Your task to perform on an android device: Show the shopping cart on walmart. Add sony triple a to the cart on walmart Image 0: 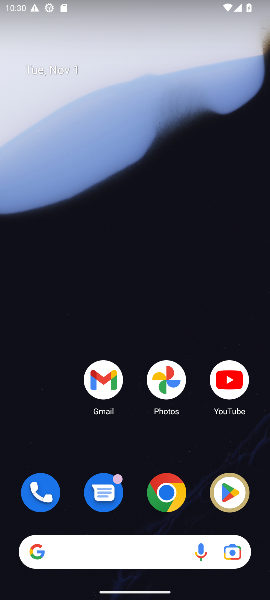
Step 0: click (159, 496)
Your task to perform on an android device: Show the shopping cart on walmart. Add sony triple a to the cart on walmart Image 1: 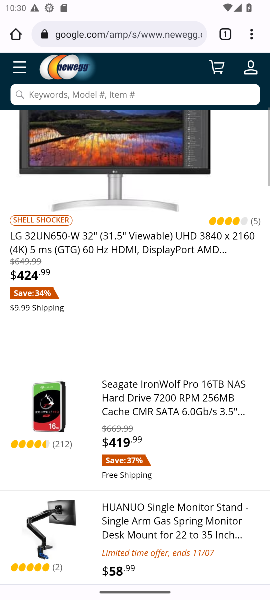
Step 1: click (74, 31)
Your task to perform on an android device: Show the shopping cart on walmart. Add sony triple a to the cart on walmart Image 2: 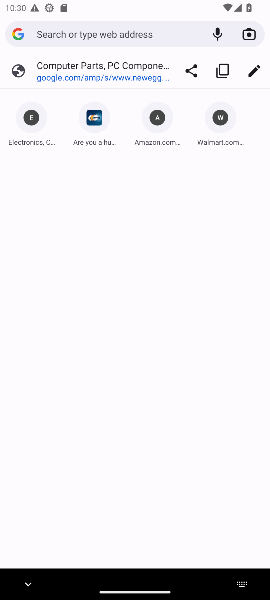
Step 2: type "walmart"
Your task to perform on an android device: Show the shopping cart on walmart. Add sony triple a to the cart on walmart Image 3: 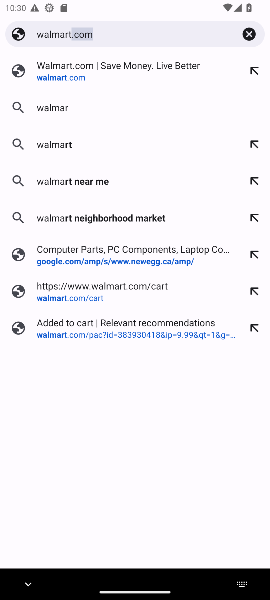
Step 3: type ""
Your task to perform on an android device: Show the shopping cart on walmart. Add sony triple a to the cart on walmart Image 4: 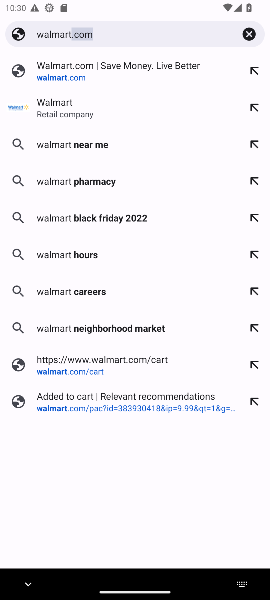
Step 4: click (46, 114)
Your task to perform on an android device: Show the shopping cart on walmart. Add sony triple a to the cart on walmart Image 5: 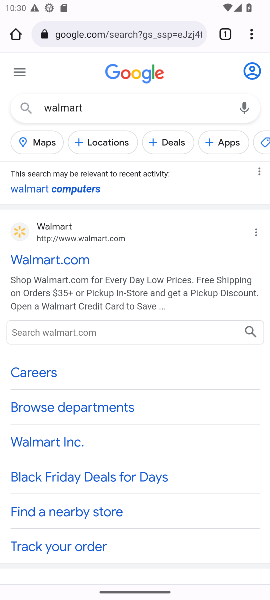
Step 5: click (47, 263)
Your task to perform on an android device: Show the shopping cart on walmart. Add sony triple a to the cart on walmart Image 6: 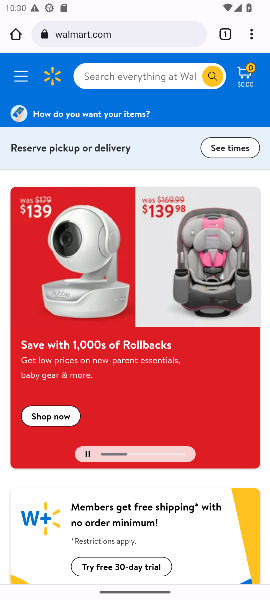
Step 6: click (108, 72)
Your task to perform on an android device: Show the shopping cart on walmart. Add sony triple a to the cart on walmart Image 7: 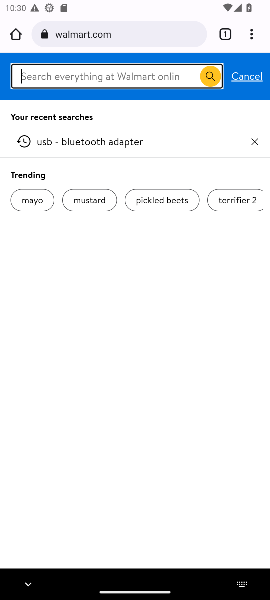
Step 7: type "sony triple"
Your task to perform on an android device: Show the shopping cart on walmart. Add sony triple a to the cart on walmart Image 8: 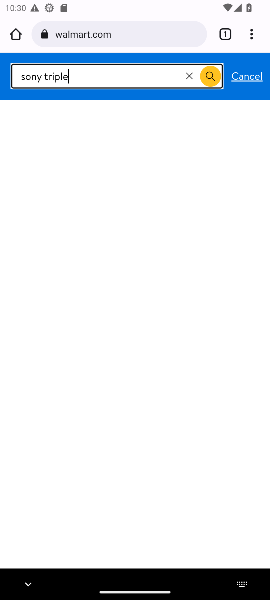
Step 8: type ""
Your task to perform on an android device: Show the shopping cart on walmart. Add sony triple a to the cart on walmart Image 9: 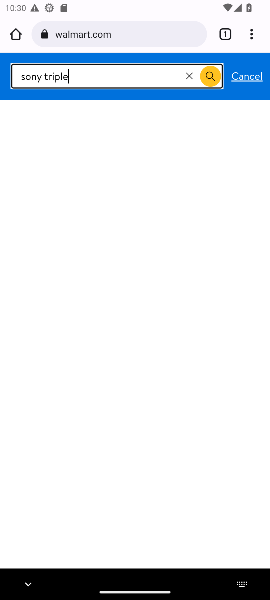
Step 9: click (206, 76)
Your task to perform on an android device: Show the shopping cart on walmart. Add sony triple a to the cart on walmart Image 10: 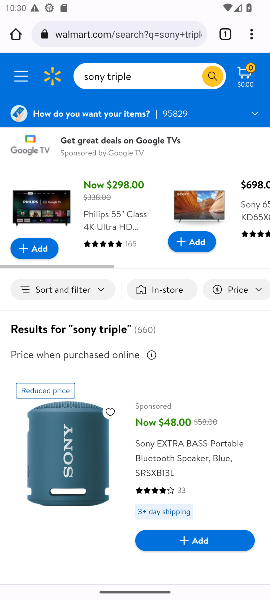
Step 10: drag from (64, 478) to (147, 157)
Your task to perform on an android device: Show the shopping cart on walmart. Add sony triple a to the cart on walmart Image 11: 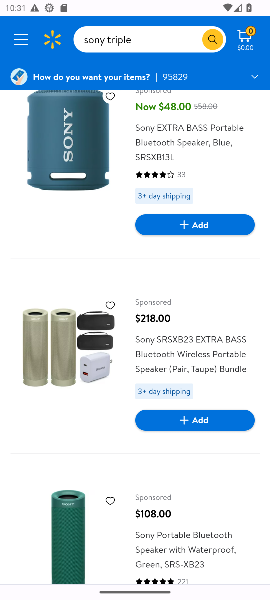
Step 11: click (50, 164)
Your task to perform on an android device: Show the shopping cart on walmart. Add sony triple a to the cart on walmart Image 12: 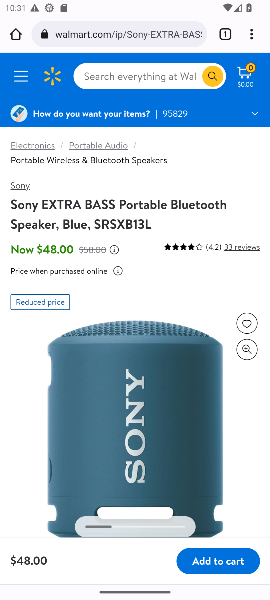
Step 12: drag from (115, 442) to (180, 191)
Your task to perform on an android device: Show the shopping cart on walmart. Add sony triple a to the cart on walmart Image 13: 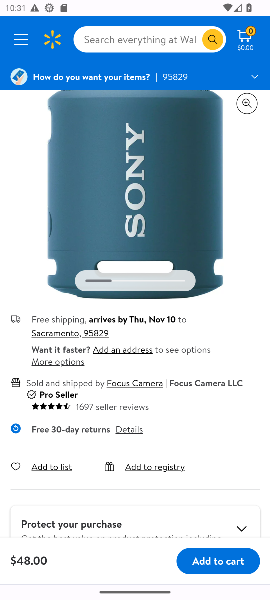
Step 13: click (214, 561)
Your task to perform on an android device: Show the shopping cart on walmart. Add sony triple a to the cart on walmart Image 14: 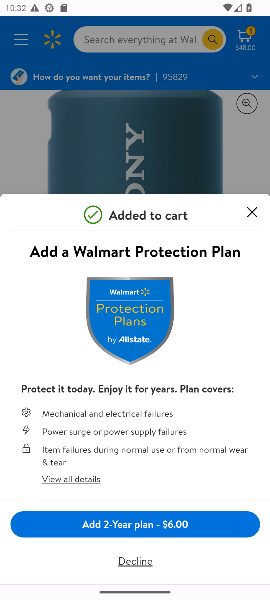
Step 14: click (252, 215)
Your task to perform on an android device: Show the shopping cart on walmart. Add sony triple a to the cart on walmart Image 15: 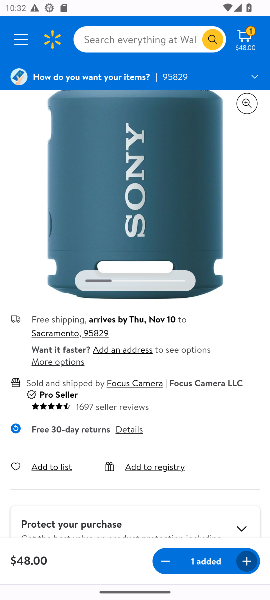
Step 15: drag from (146, 461) to (158, 188)
Your task to perform on an android device: Show the shopping cart on walmart. Add sony triple a to the cart on walmart Image 16: 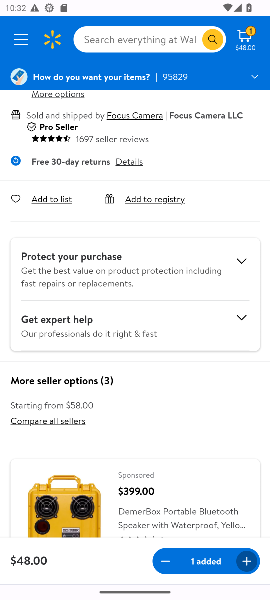
Step 16: drag from (108, 462) to (139, 198)
Your task to perform on an android device: Show the shopping cart on walmart. Add sony triple a to the cart on walmart Image 17: 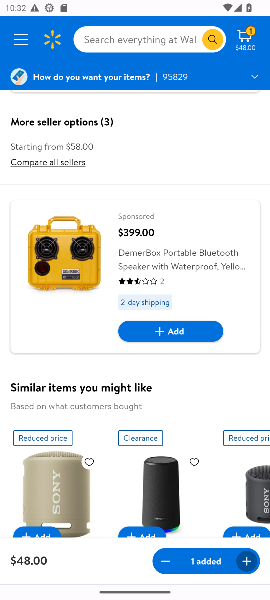
Step 17: drag from (183, 190) to (110, 517)
Your task to perform on an android device: Show the shopping cart on walmart. Add sony triple a to the cart on walmart Image 18: 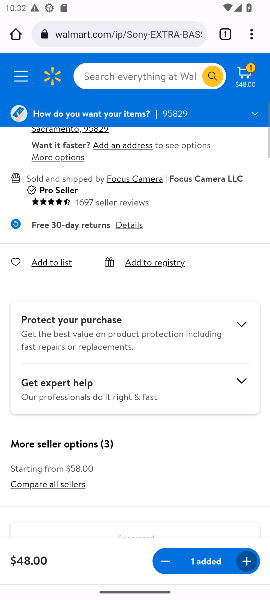
Step 18: drag from (141, 233) to (48, 485)
Your task to perform on an android device: Show the shopping cart on walmart. Add sony triple a to the cart on walmart Image 19: 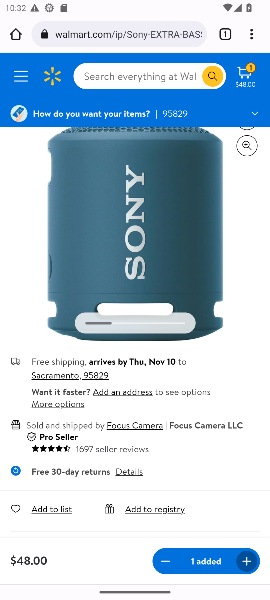
Step 19: click (246, 69)
Your task to perform on an android device: Show the shopping cart on walmart. Add sony triple a to the cart on walmart Image 20: 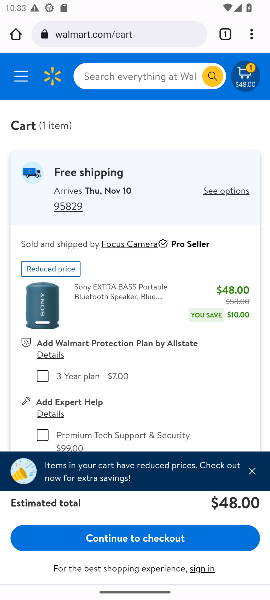
Step 20: task complete